Your task to perform on an android device: Show me productivity apps on the Play Store Image 0: 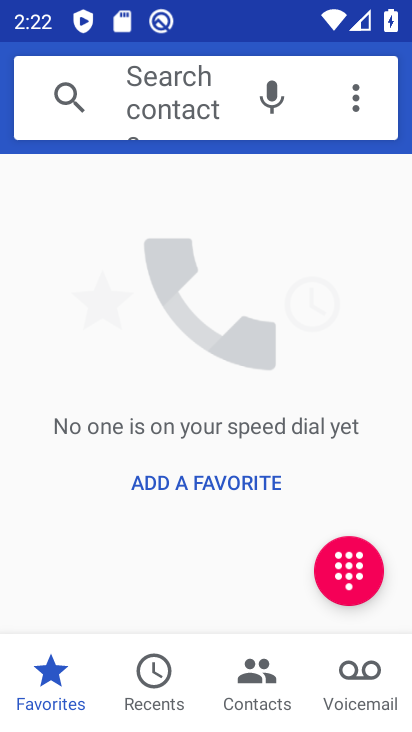
Step 0: press home button
Your task to perform on an android device: Show me productivity apps on the Play Store Image 1: 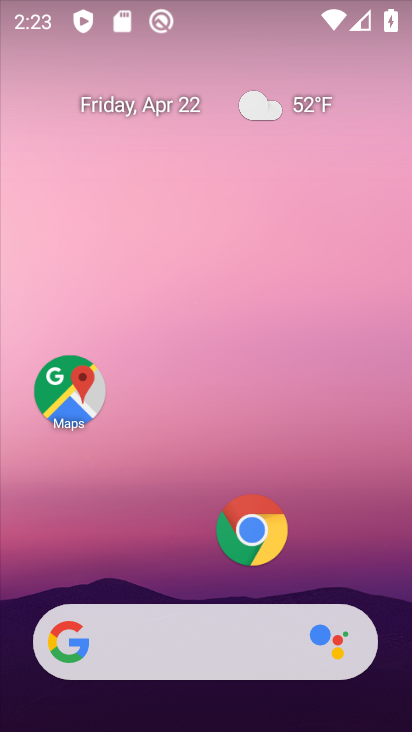
Step 1: drag from (183, 621) to (204, 202)
Your task to perform on an android device: Show me productivity apps on the Play Store Image 2: 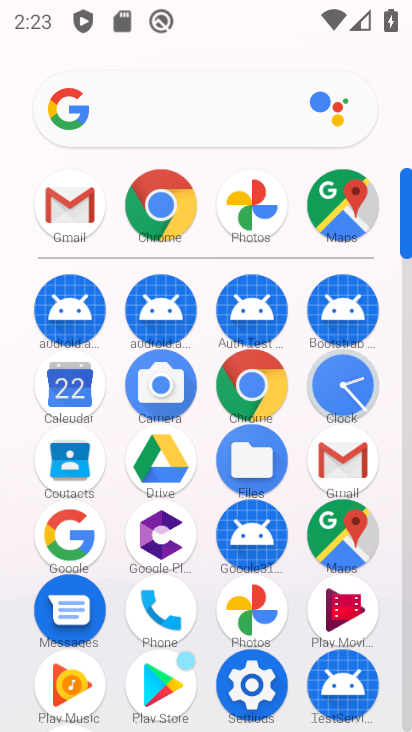
Step 2: click (174, 669)
Your task to perform on an android device: Show me productivity apps on the Play Store Image 3: 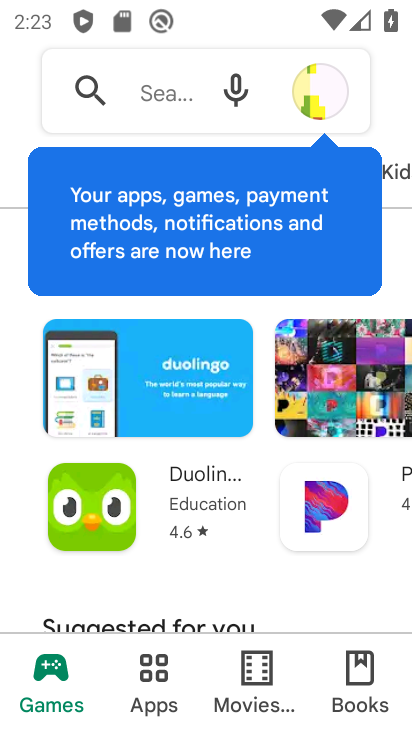
Step 3: click (158, 686)
Your task to perform on an android device: Show me productivity apps on the Play Store Image 4: 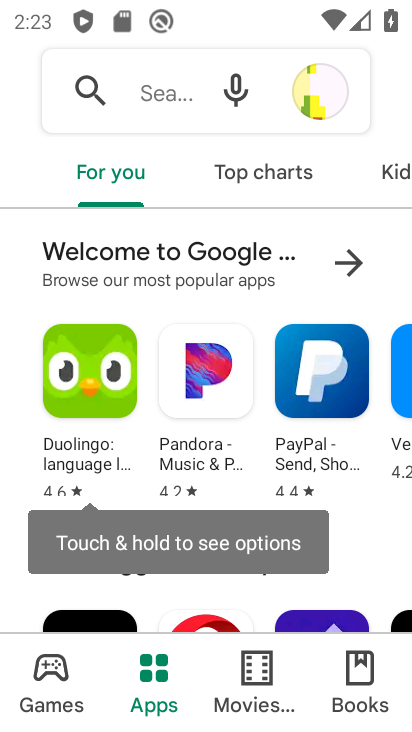
Step 4: drag from (384, 171) to (2, 201)
Your task to perform on an android device: Show me productivity apps on the Play Store Image 5: 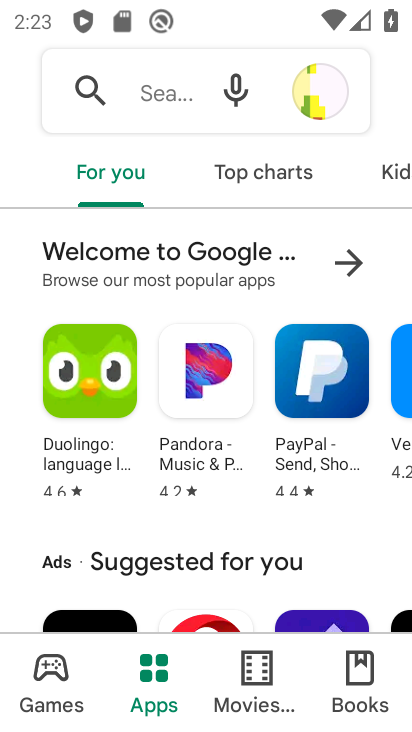
Step 5: drag from (348, 189) to (107, 173)
Your task to perform on an android device: Show me productivity apps on the Play Store Image 6: 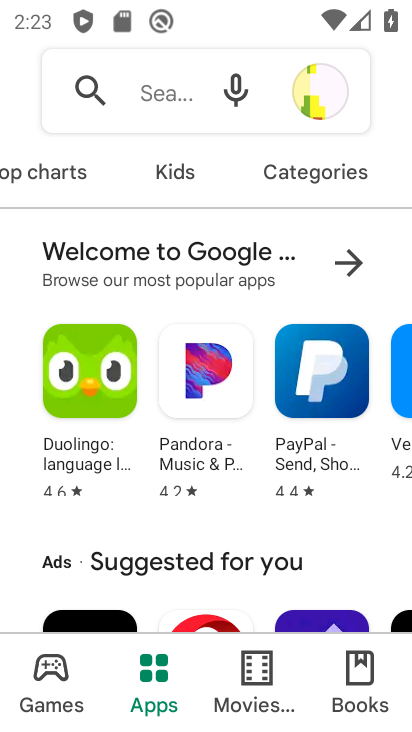
Step 6: click (346, 167)
Your task to perform on an android device: Show me productivity apps on the Play Store Image 7: 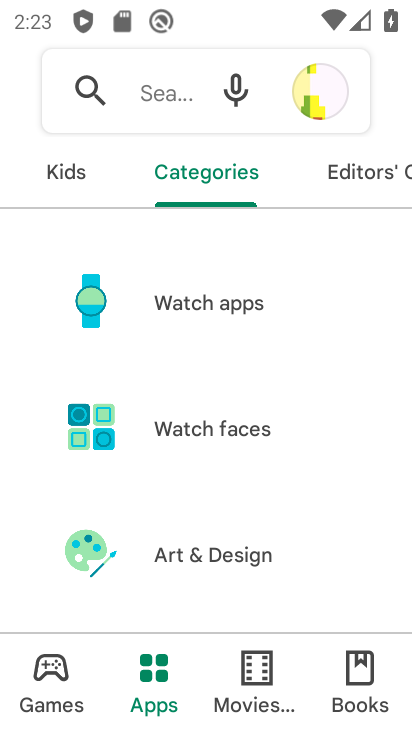
Step 7: drag from (193, 486) to (179, 156)
Your task to perform on an android device: Show me productivity apps on the Play Store Image 8: 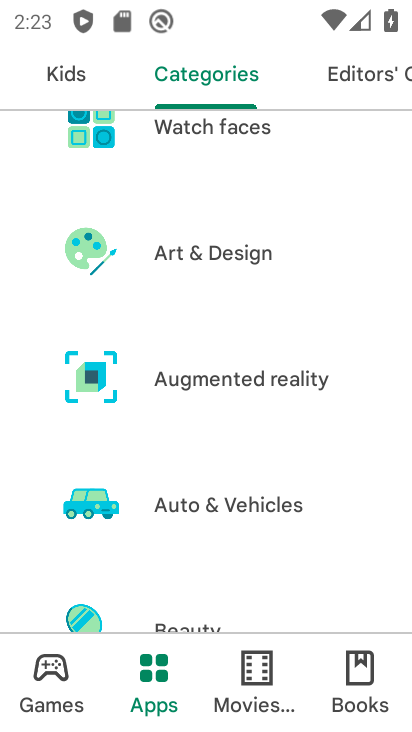
Step 8: drag from (212, 444) to (164, 146)
Your task to perform on an android device: Show me productivity apps on the Play Store Image 9: 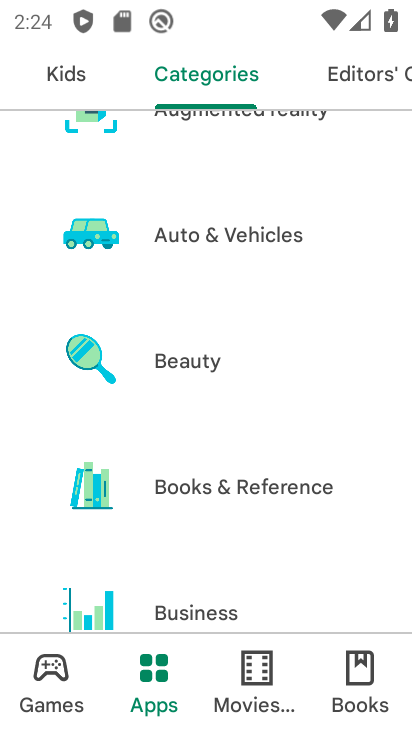
Step 9: drag from (194, 521) to (243, 2)
Your task to perform on an android device: Show me productivity apps on the Play Store Image 10: 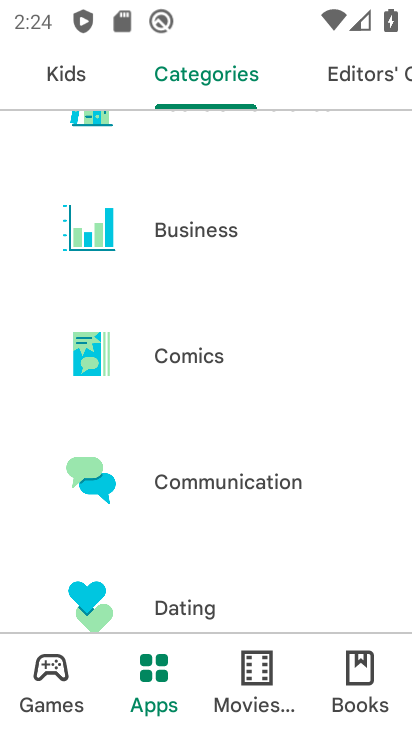
Step 10: drag from (206, 537) to (164, 112)
Your task to perform on an android device: Show me productivity apps on the Play Store Image 11: 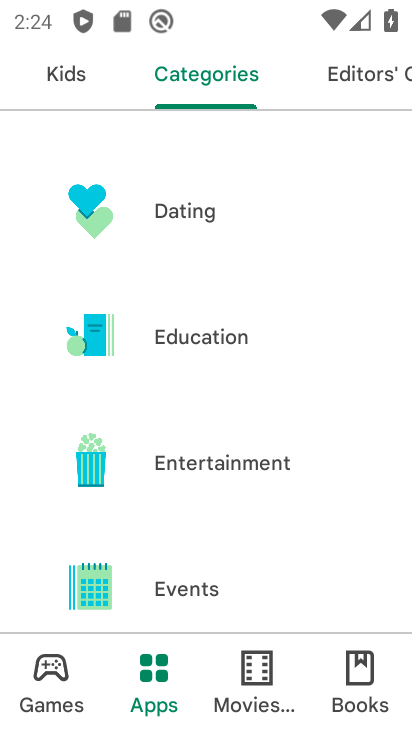
Step 11: drag from (208, 558) to (204, 184)
Your task to perform on an android device: Show me productivity apps on the Play Store Image 12: 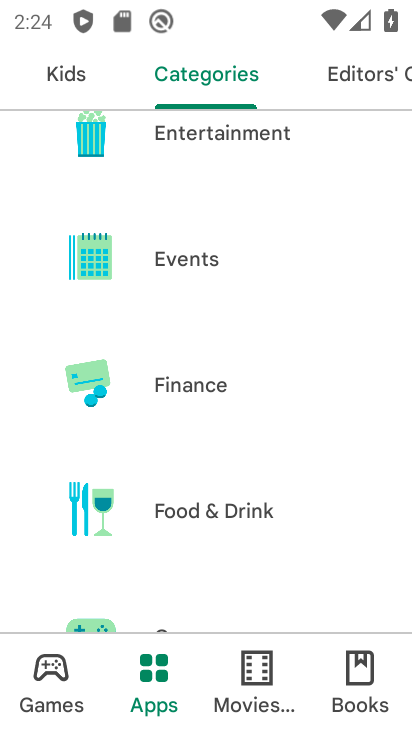
Step 12: drag from (198, 427) to (204, 25)
Your task to perform on an android device: Show me productivity apps on the Play Store Image 13: 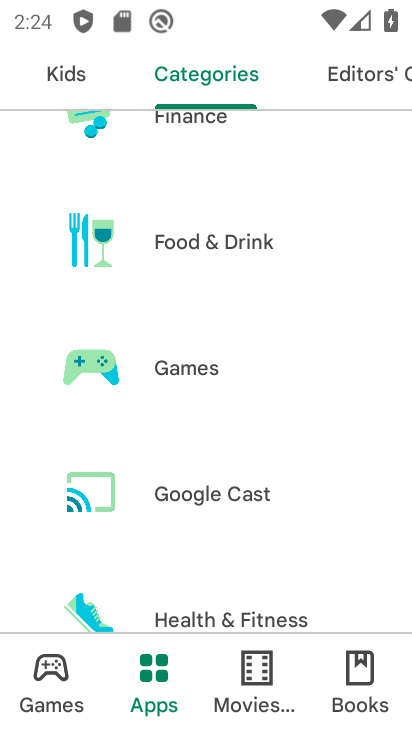
Step 13: drag from (222, 539) to (224, 7)
Your task to perform on an android device: Show me productivity apps on the Play Store Image 14: 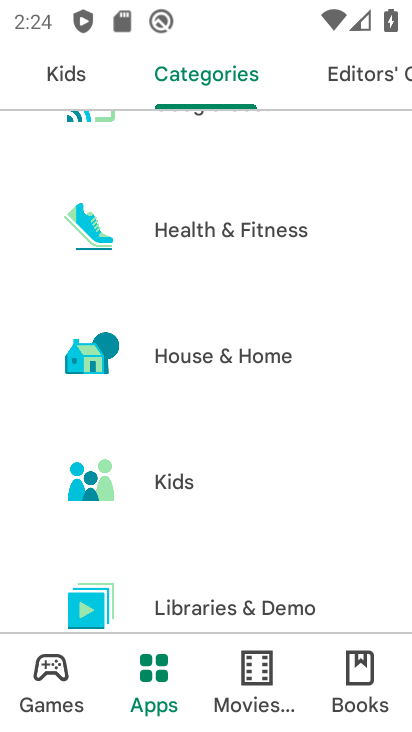
Step 14: drag from (247, 566) to (248, 94)
Your task to perform on an android device: Show me productivity apps on the Play Store Image 15: 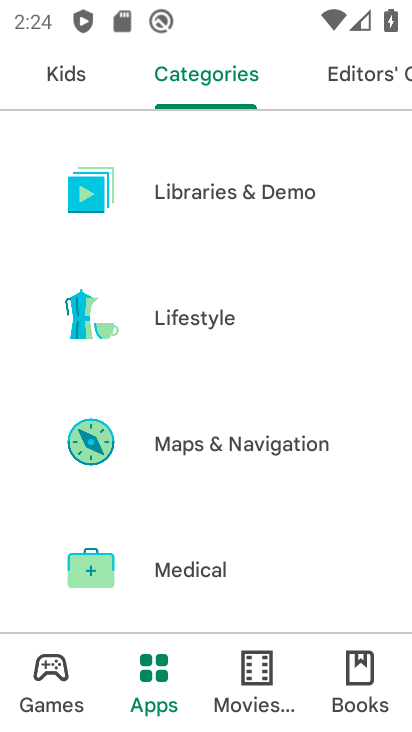
Step 15: drag from (248, 493) to (276, 5)
Your task to perform on an android device: Show me productivity apps on the Play Store Image 16: 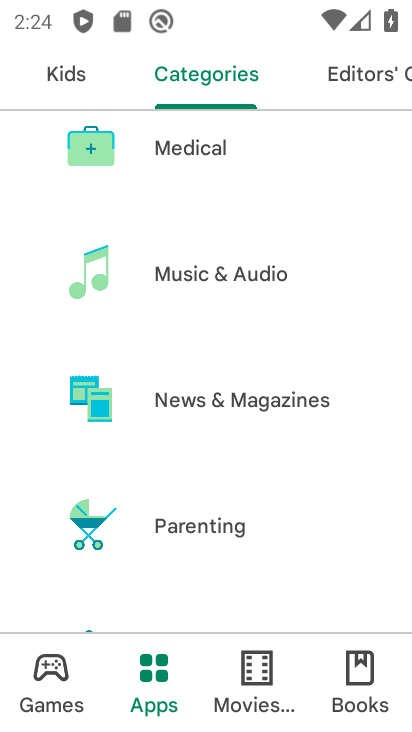
Step 16: drag from (251, 435) to (255, 7)
Your task to perform on an android device: Show me productivity apps on the Play Store Image 17: 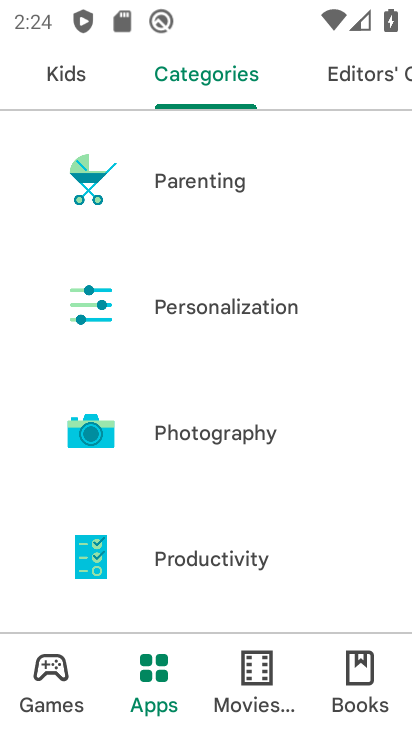
Step 17: click (208, 563)
Your task to perform on an android device: Show me productivity apps on the Play Store Image 18: 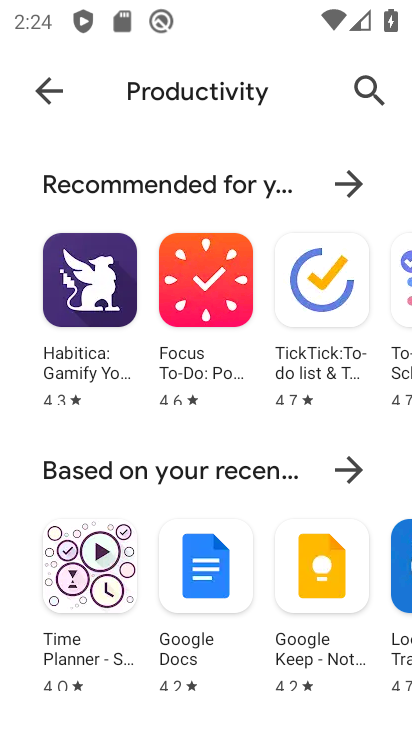
Step 18: task complete